Your task to perform on an android device: toggle data saver in the chrome app Image 0: 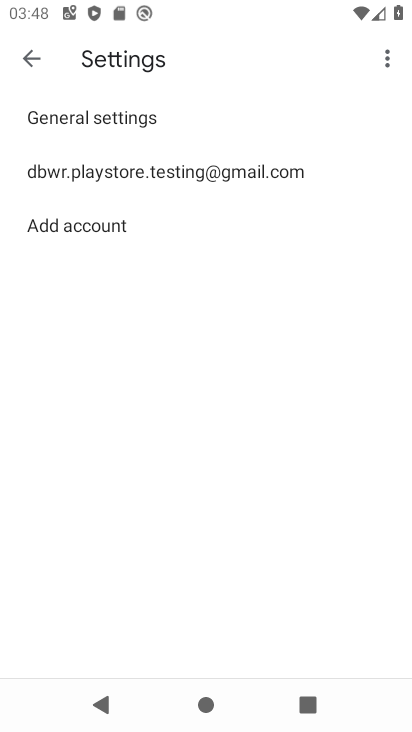
Step 0: press home button
Your task to perform on an android device: toggle data saver in the chrome app Image 1: 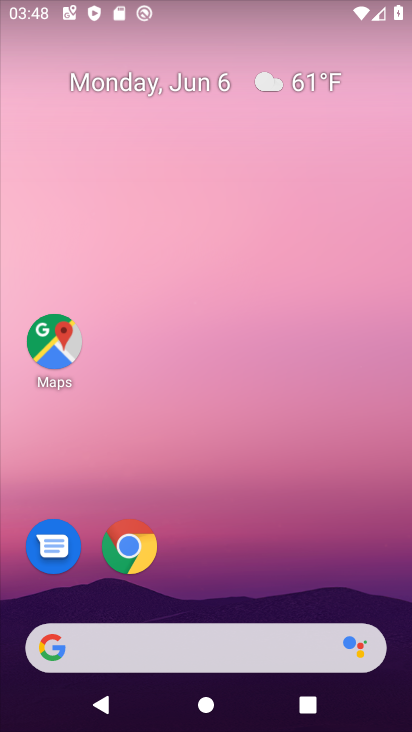
Step 1: click (126, 552)
Your task to perform on an android device: toggle data saver in the chrome app Image 2: 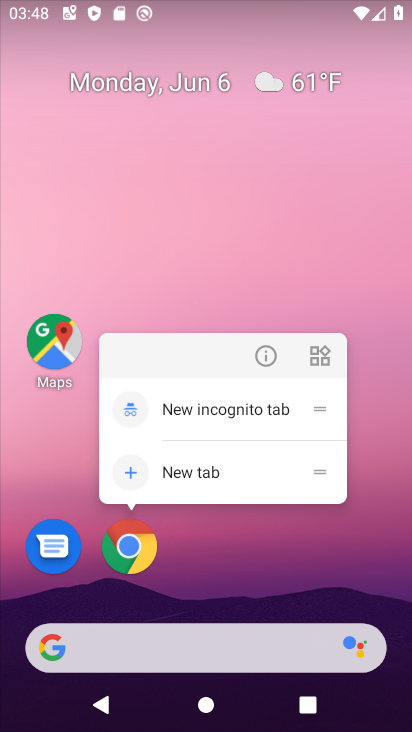
Step 2: click (124, 553)
Your task to perform on an android device: toggle data saver in the chrome app Image 3: 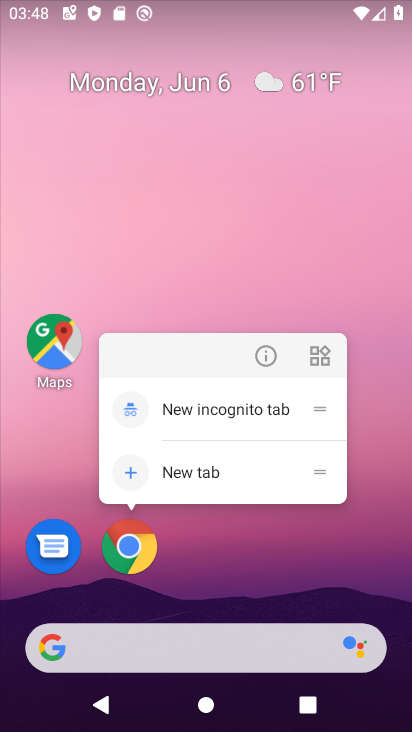
Step 3: click (123, 550)
Your task to perform on an android device: toggle data saver in the chrome app Image 4: 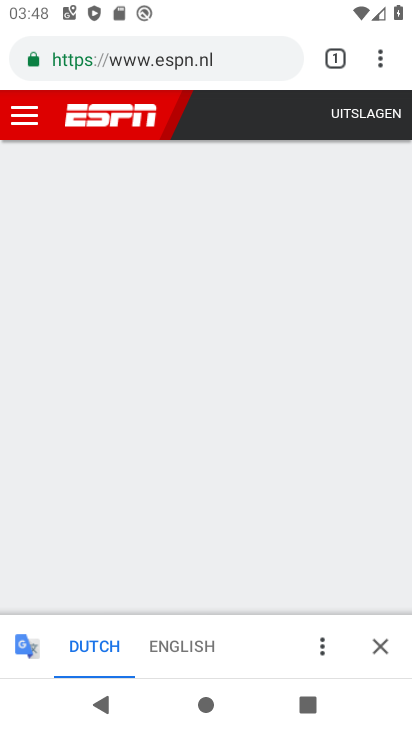
Step 4: drag from (382, 55) to (242, 582)
Your task to perform on an android device: toggle data saver in the chrome app Image 5: 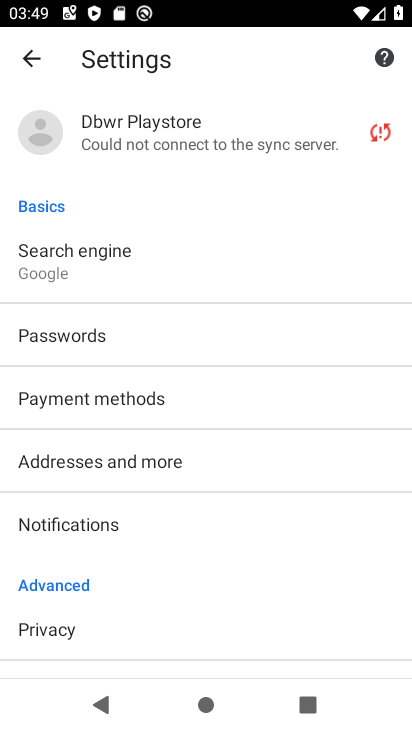
Step 5: drag from (187, 592) to (193, 112)
Your task to perform on an android device: toggle data saver in the chrome app Image 6: 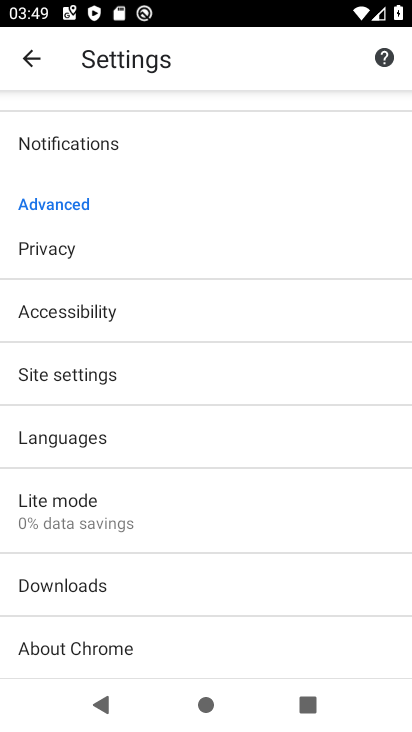
Step 6: click (49, 515)
Your task to perform on an android device: toggle data saver in the chrome app Image 7: 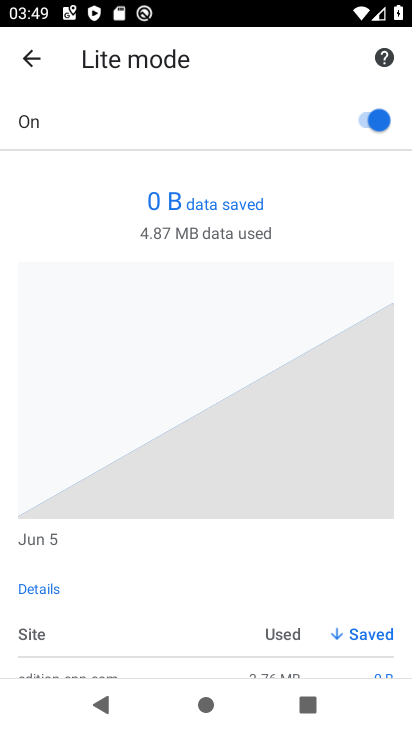
Step 7: click (376, 118)
Your task to perform on an android device: toggle data saver in the chrome app Image 8: 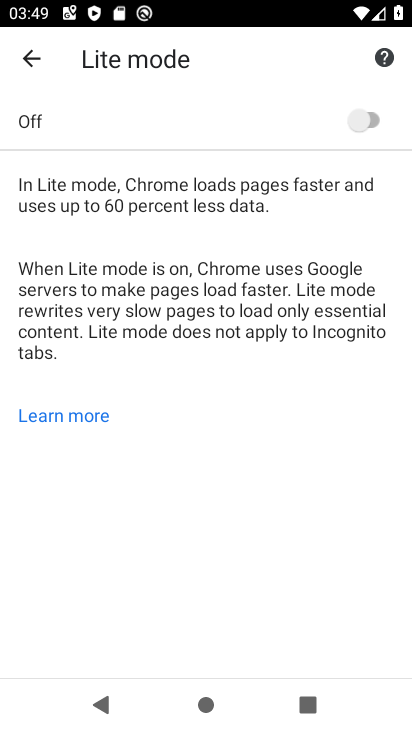
Step 8: task complete